Your task to perform on an android device: turn off airplane mode Image 0: 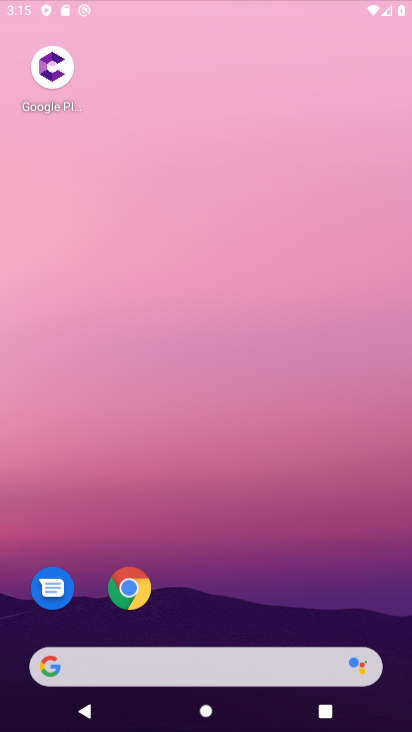
Step 0: click (154, 10)
Your task to perform on an android device: turn off airplane mode Image 1: 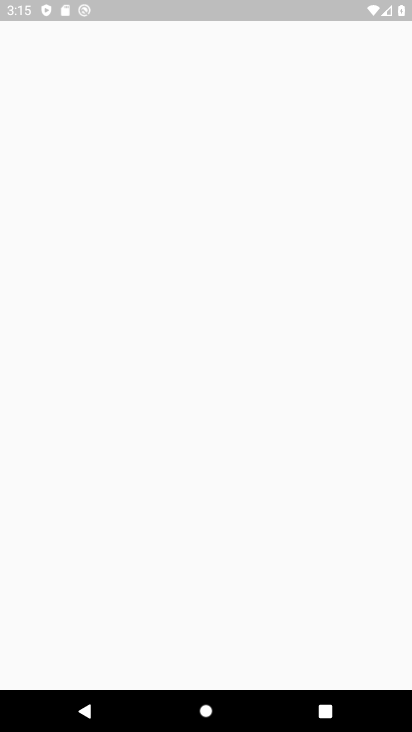
Step 1: press home button
Your task to perform on an android device: turn off airplane mode Image 2: 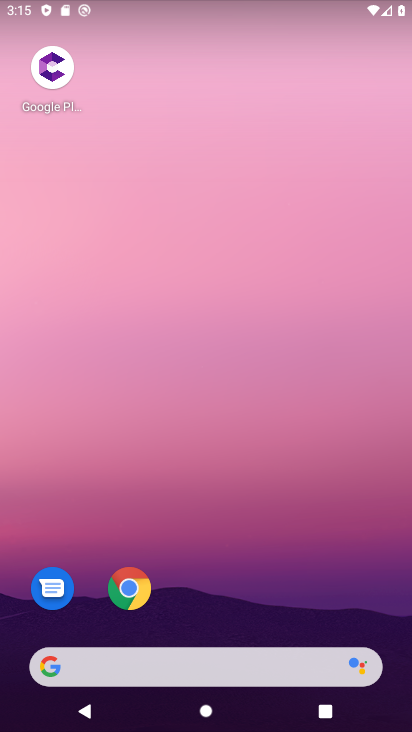
Step 2: drag from (213, 542) to (210, 53)
Your task to perform on an android device: turn off airplane mode Image 3: 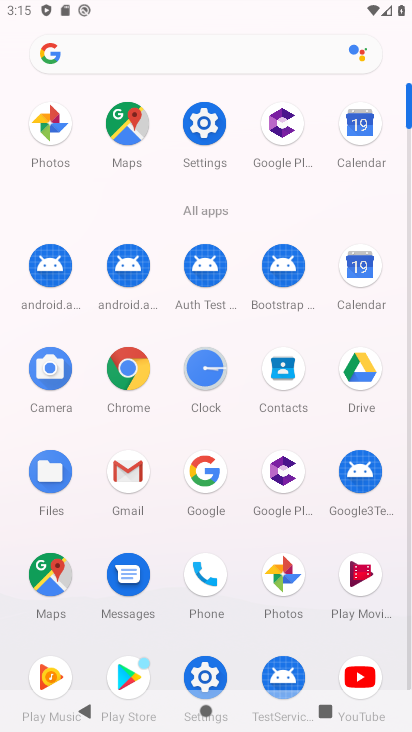
Step 3: click (203, 124)
Your task to perform on an android device: turn off airplane mode Image 4: 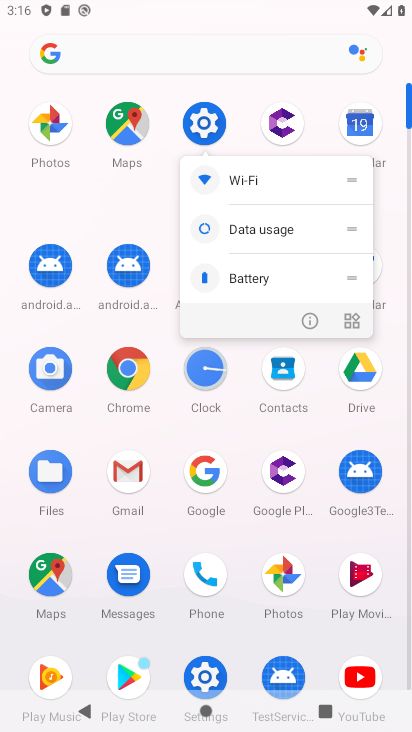
Step 4: click (207, 113)
Your task to perform on an android device: turn off airplane mode Image 5: 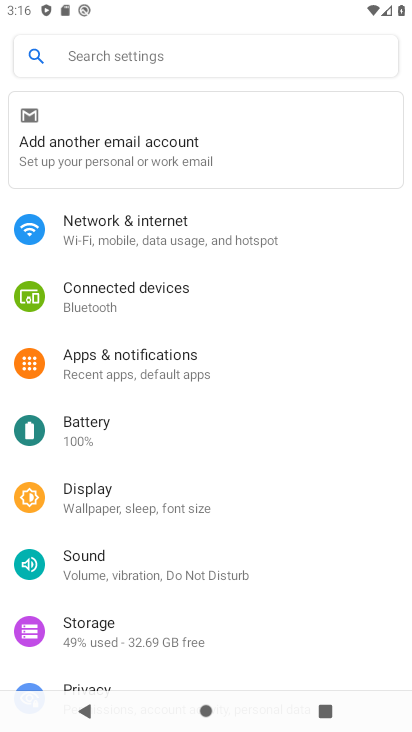
Step 5: click (173, 222)
Your task to perform on an android device: turn off airplane mode Image 6: 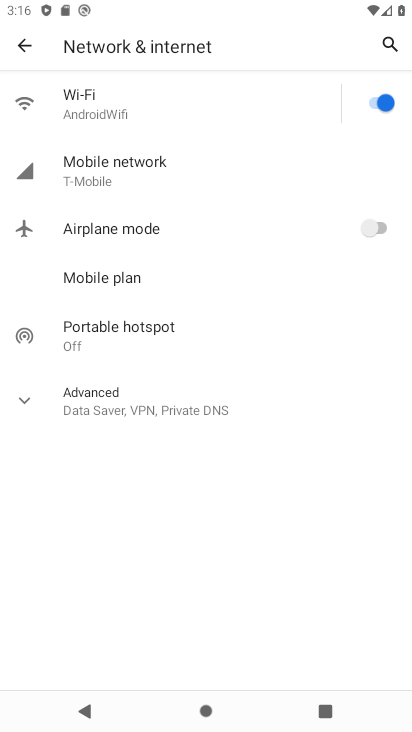
Step 6: task complete